Your task to perform on an android device: open the mobile data screen to see how much data has been used Image 0: 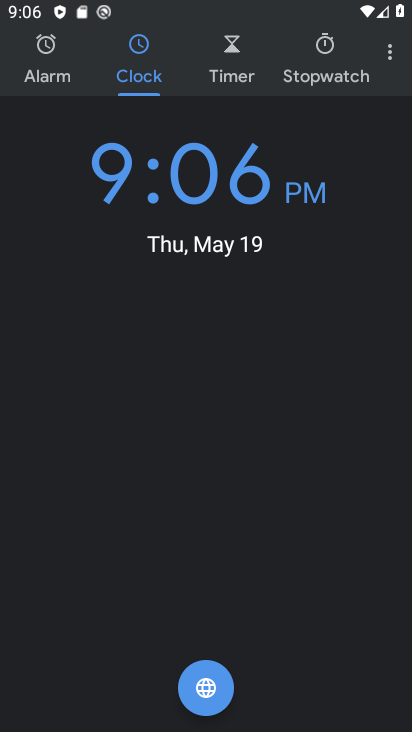
Step 0: press home button
Your task to perform on an android device: open the mobile data screen to see how much data has been used Image 1: 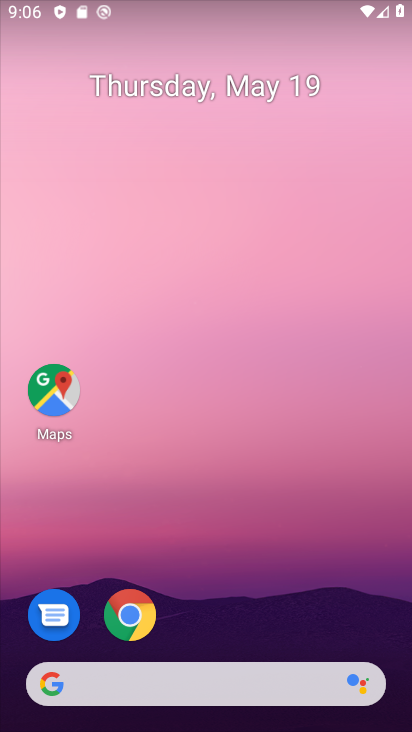
Step 1: drag from (271, 621) to (276, 21)
Your task to perform on an android device: open the mobile data screen to see how much data has been used Image 2: 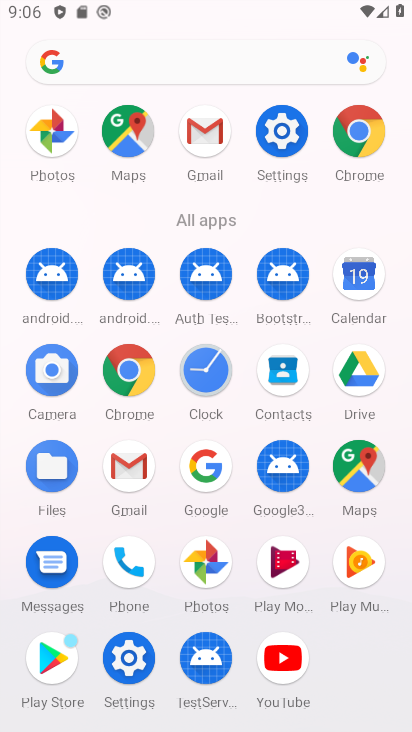
Step 2: click (270, 135)
Your task to perform on an android device: open the mobile data screen to see how much data has been used Image 3: 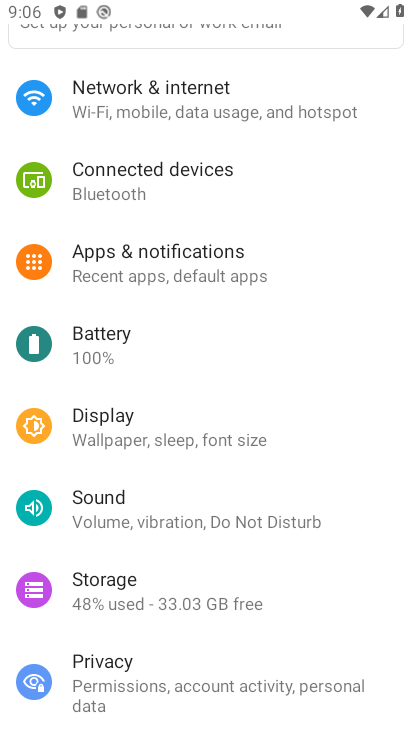
Step 3: click (158, 107)
Your task to perform on an android device: open the mobile data screen to see how much data has been used Image 4: 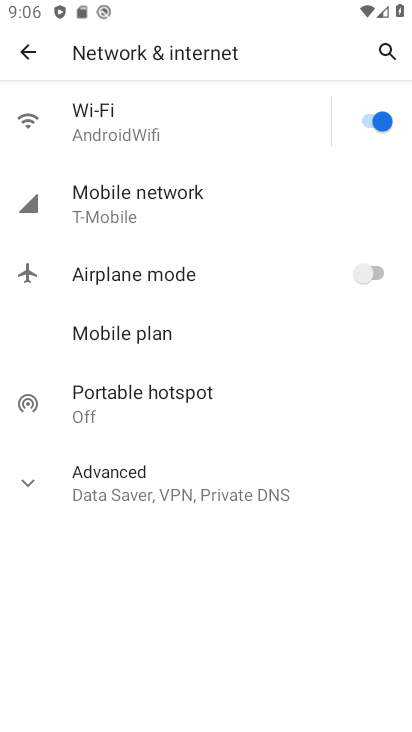
Step 4: click (188, 218)
Your task to perform on an android device: open the mobile data screen to see how much data has been used Image 5: 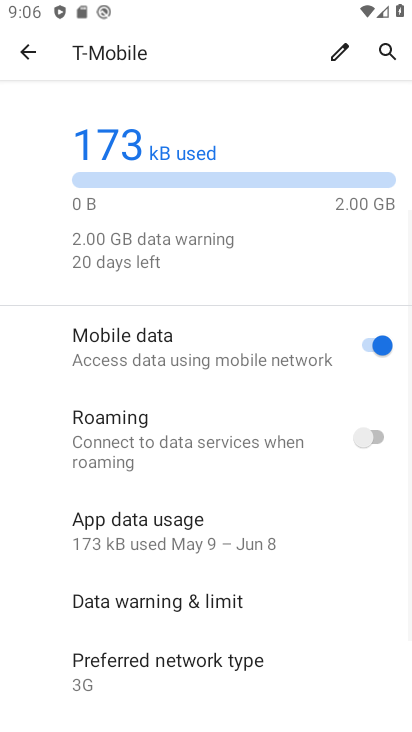
Step 5: click (144, 558)
Your task to perform on an android device: open the mobile data screen to see how much data has been used Image 6: 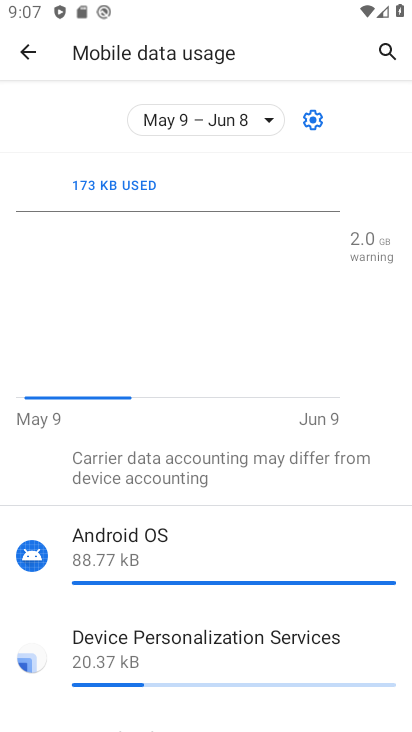
Step 6: task complete